Your task to perform on an android device: show emergency info Image 0: 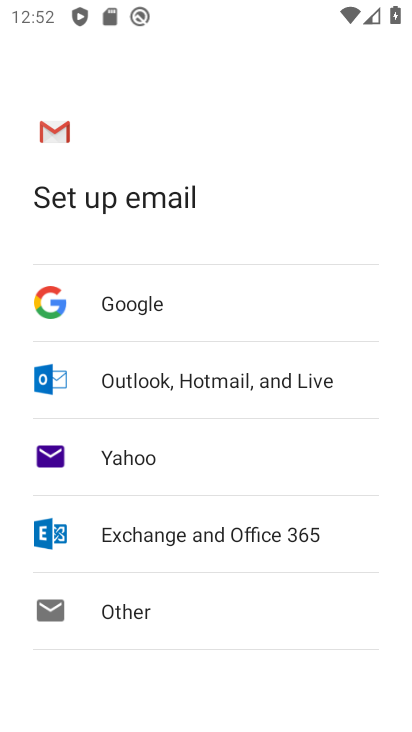
Step 0: press home button
Your task to perform on an android device: show emergency info Image 1: 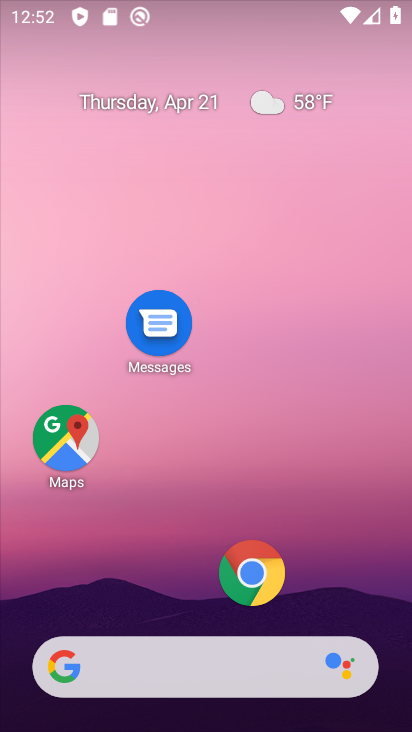
Step 1: drag from (168, 514) to (148, 70)
Your task to perform on an android device: show emergency info Image 2: 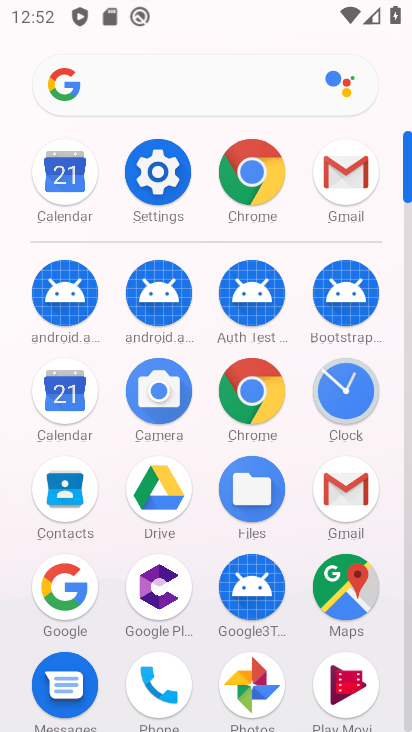
Step 2: click (162, 173)
Your task to perform on an android device: show emergency info Image 3: 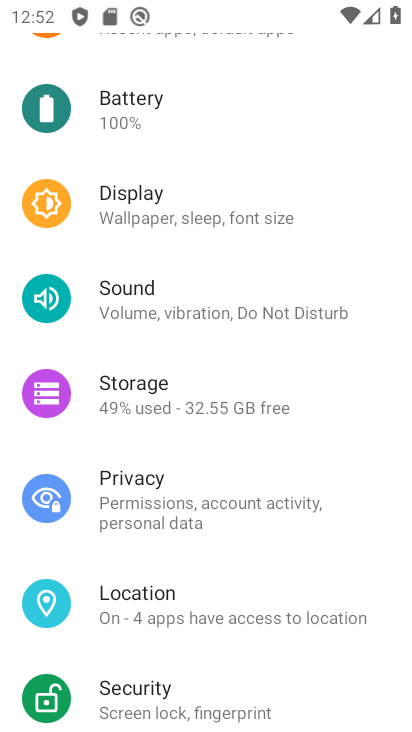
Step 3: drag from (268, 584) to (247, 26)
Your task to perform on an android device: show emergency info Image 4: 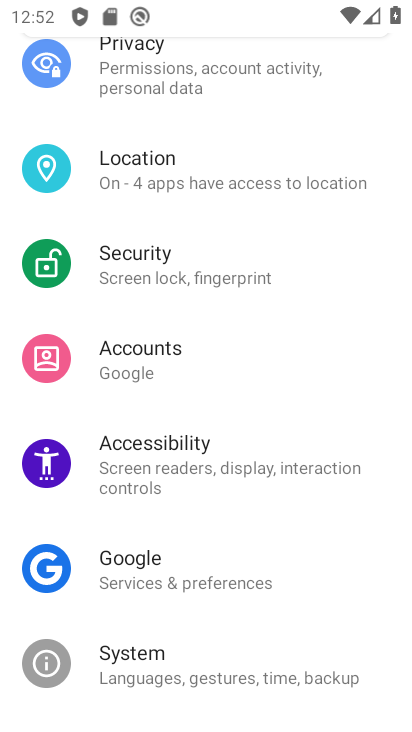
Step 4: drag from (177, 636) to (206, 69)
Your task to perform on an android device: show emergency info Image 5: 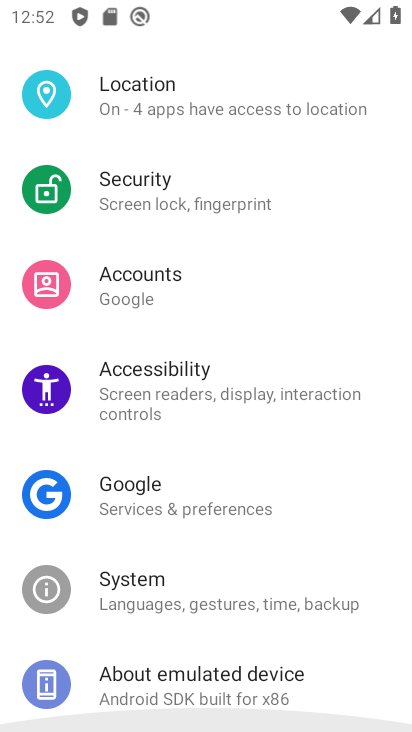
Step 5: click (146, 680)
Your task to perform on an android device: show emergency info Image 6: 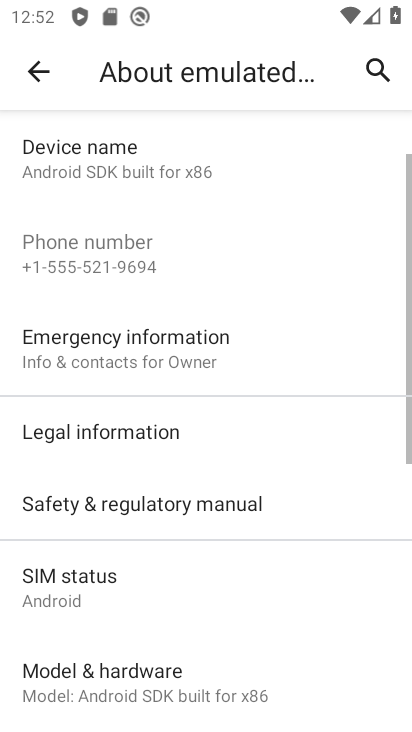
Step 6: click (114, 346)
Your task to perform on an android device: show emergency info Image 7: 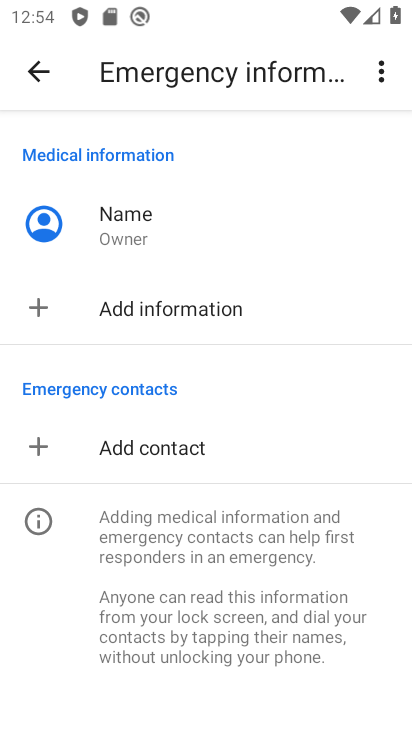
Step 7: task complete